Your task to perform on an android device: Show me productivity apps on the Play Store Image 0: 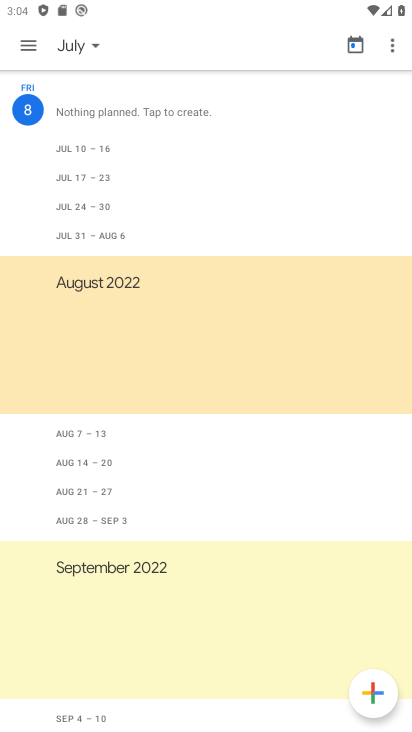
Step 0: press home button
Your task to perform on an android device: Show me productivity apps on the Play Store Image 1: 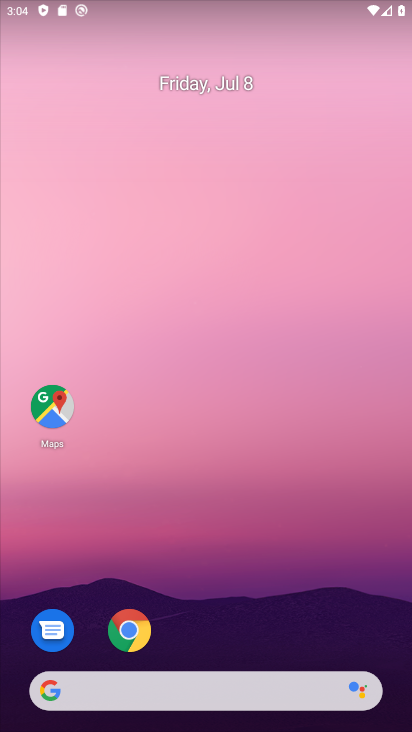
Step 1: drag from (234, 630) to (195, 31)
Your task to perform on an android device: Show me productivity apps on the Play Store Image 2: 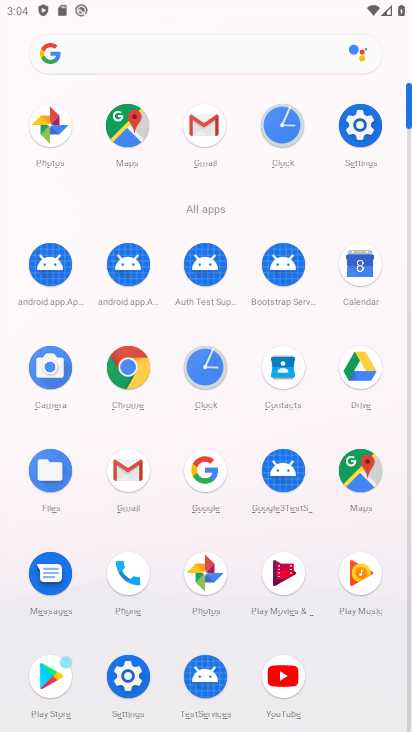
Step 2: click (55, 673)
Your task to perform on an android device: Show me productivity apps on the Play Store Image 3: 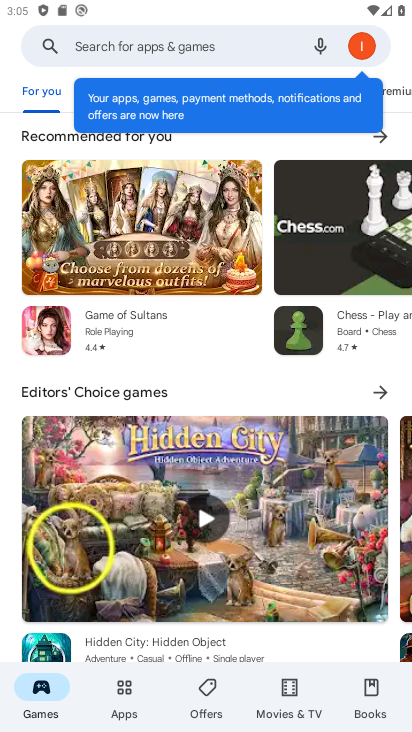
Step 3: click (134, 695)
Your task to perform on an android device: Show me productivity apps on the Play Store Image 4: 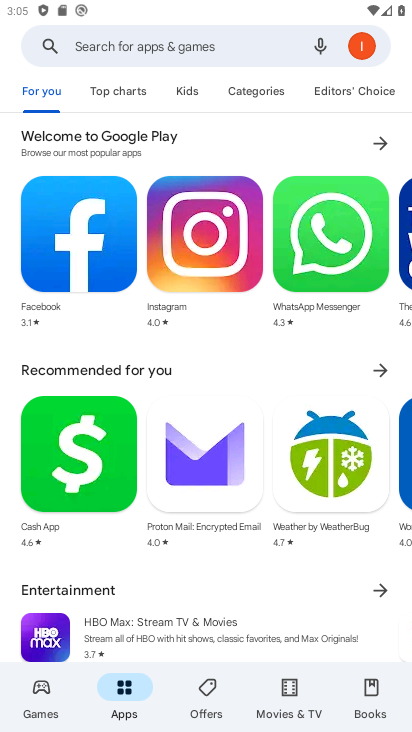
Step 4: click (258, 94)
Your task to perform on an android device: Show me productivity apps on the Play Store Image 5: 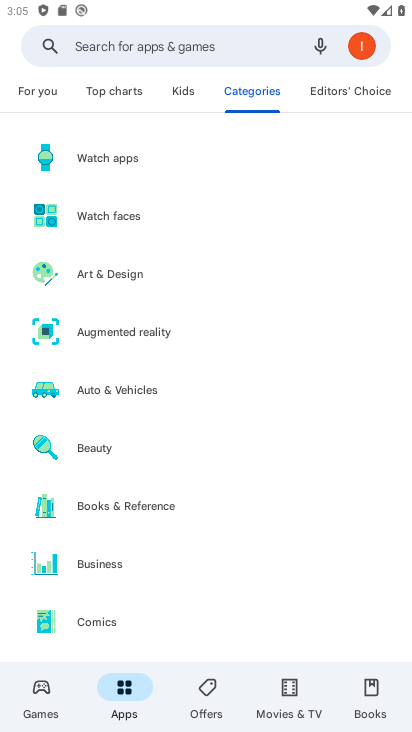
Step 5: drag from (132, 551) to (190, 462)
Your task to perform on an android device: Show me productivity apps on the Play Store Image 6: 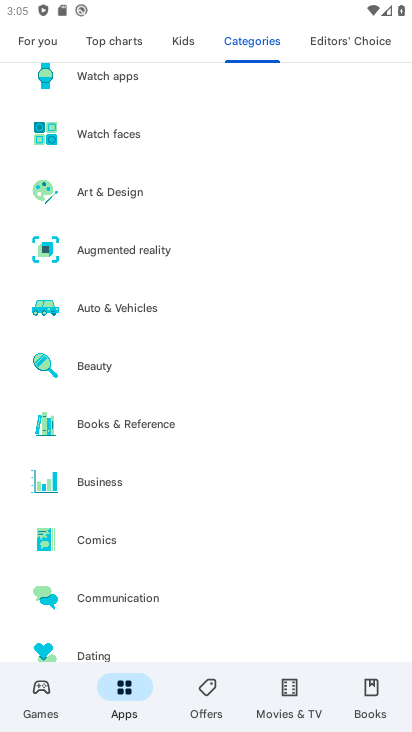
Step 6: drag from (144, 564) to (216, 449)
Your task to perform on an android device: Show me productivity apps on the Play Store Image 7: 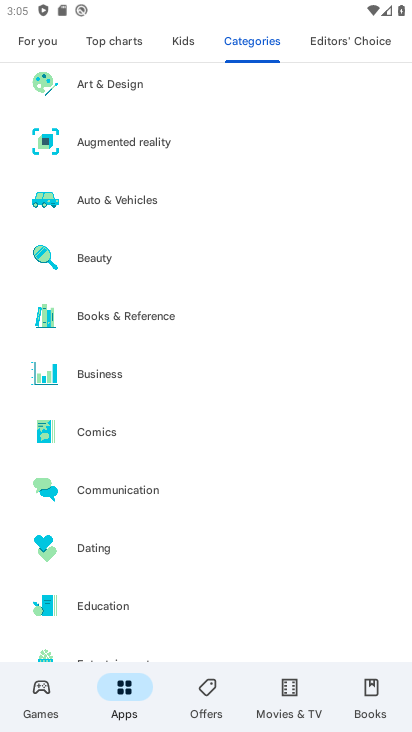
Step 7: drag from (170, 532) to (222, 464)
Your task to perform on an android device: Show me productivity apps on the Play Store Image 8: 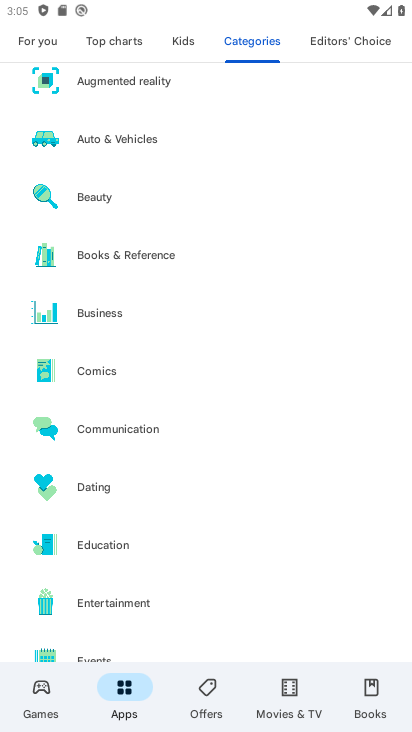
Step 8: drag from (161, 534) to (251, 419)
Your task to perform on an android device: Show me productivity apps on the Play Store Image 9: 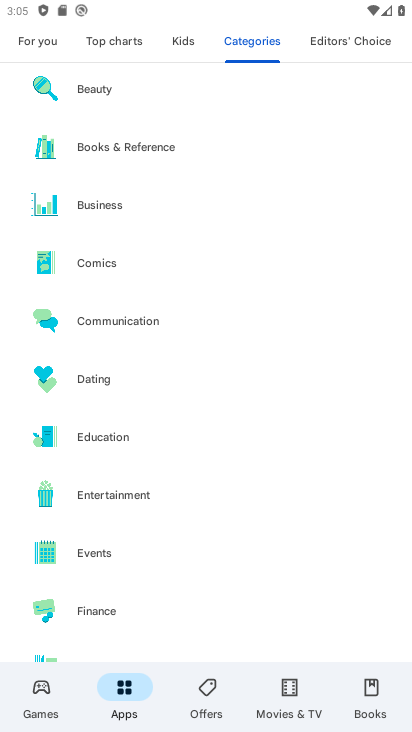
Step 9: drag from (138, 541) to (226, 441)
Your task to perform on an android device: Show me productivity apps on the Play Store Image 10: 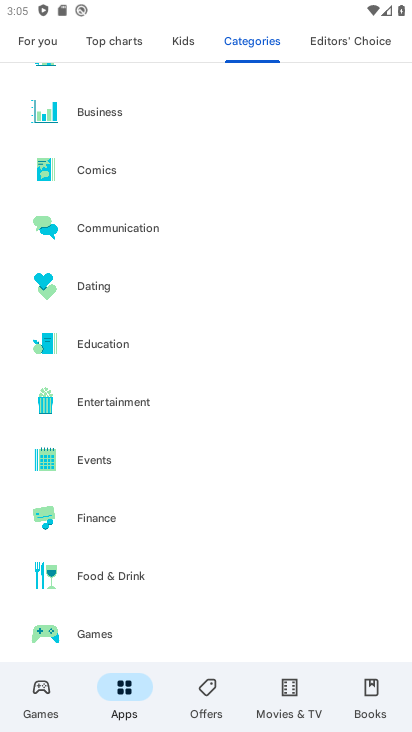
Step 10: drag from (123, 556) to (234, 438)
Your task to perform on an android device: Show me productivity apps on the Play Store Image 11: 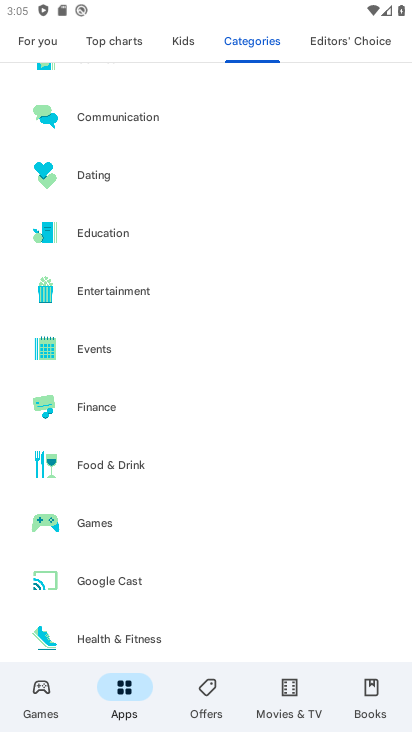
Step 11: drag from (140, 504) to (265, 378)
Your task to perform on an android device: Show me productivity apps on the Play Store Image 12: 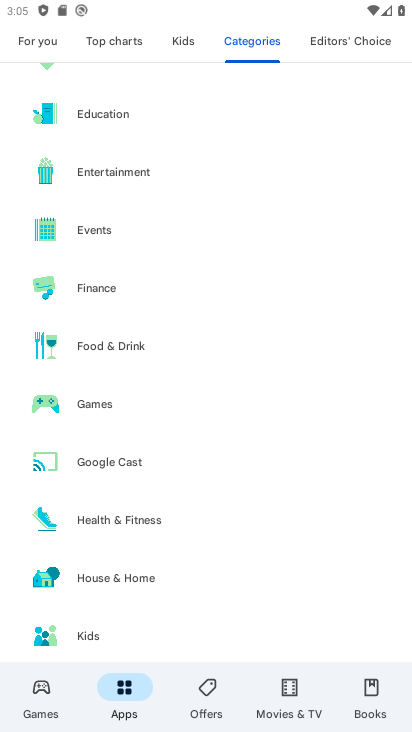
Step 12: drag from (124, 542) to (236, 408)
Your task to perform on an android device: Show me productivity apps on the Play Store Image 13: 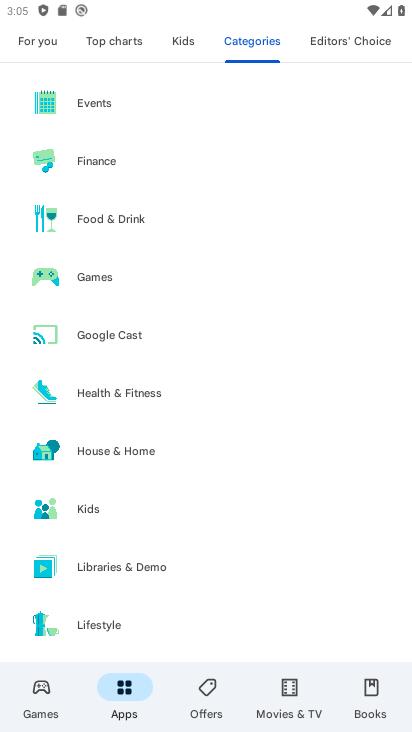
Step 13: drag from (117, 516) to (201, 404)
Your task to perform on an android device: Show me productivity apps on the Play Store Image 14: 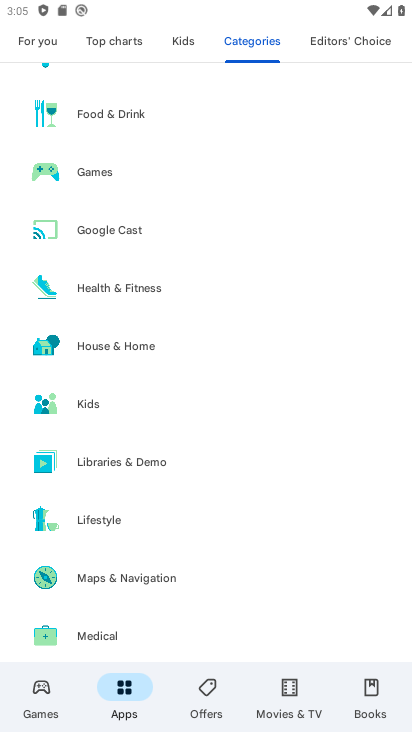
Step 14: drag from (119, 495) to (221, 374)
Your task to perform on an android device: Show me productivity apps on the Play Store Image 15: 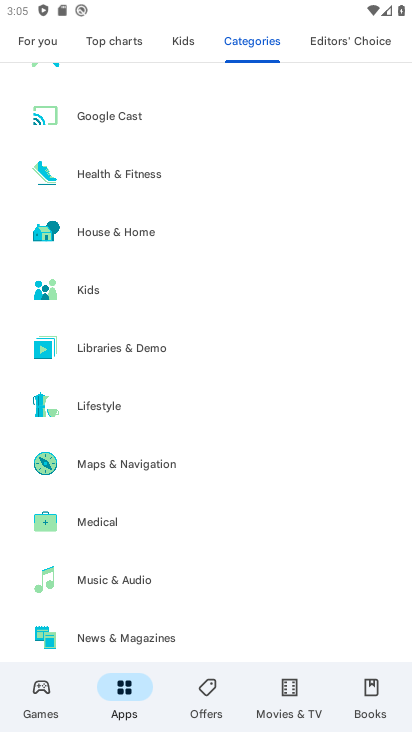
Step 15: drag from (122, 545) to (237, 394)
Your task to perform on an android device: Show me productivity apps on the Play Store Image 16: 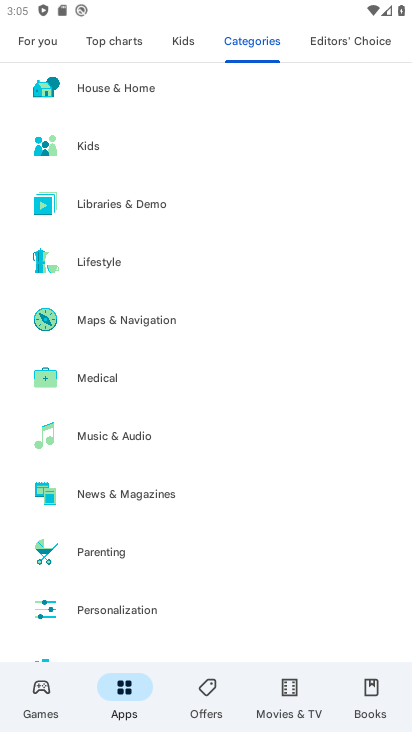
Step 16: drag from (115, 571) to (238, 435)
Your task to perform on an android device: Show me productivity apps on the Play Store Image 17: 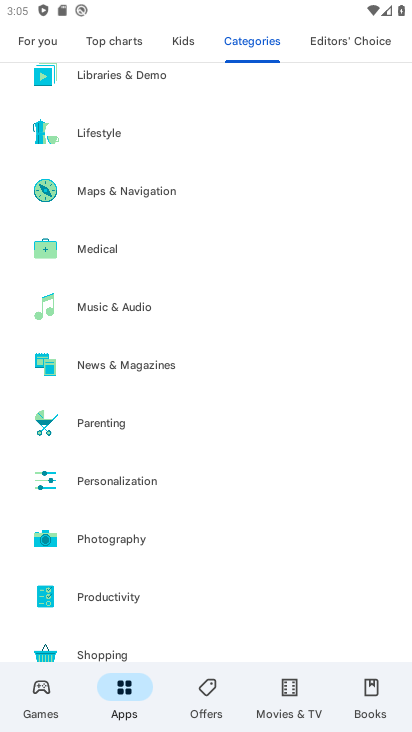
Step 17: drag from (123, 562) to (270, 422)
Your task to perform on an android device: Show me productivity apps on the Play Store Image 18: 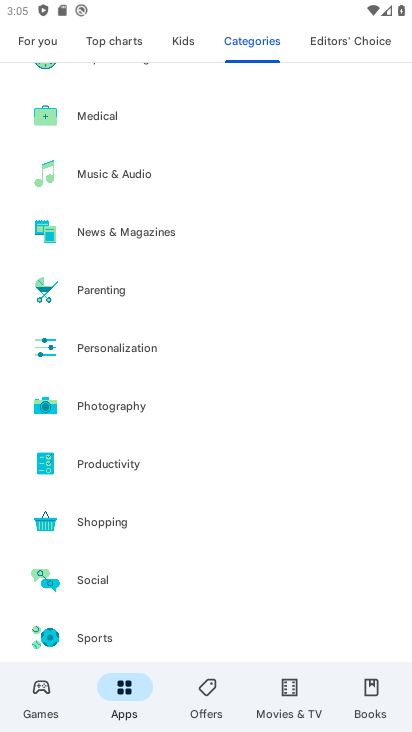
Step 18: click (133, 459)
Your task to perform on an android device: Show me productivity apps on the Play Store Image 19: 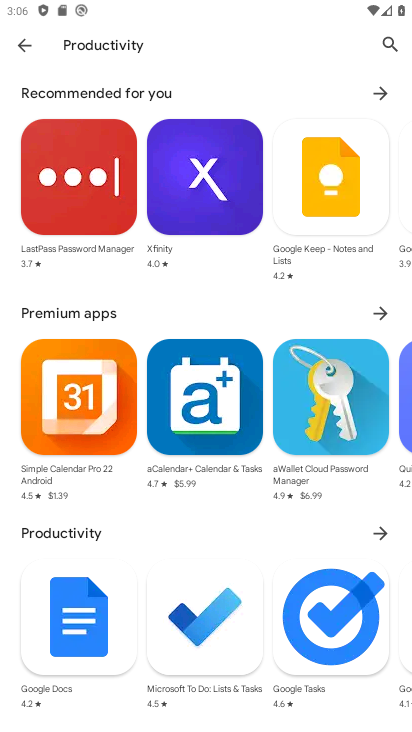
Step 19: task complete